Your task to perform on an android device: change notifications settings Image 0: 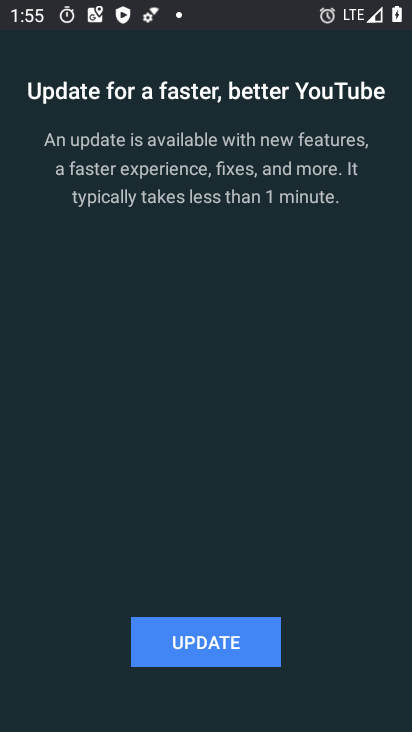
Step 0: press home button
Your task to perform on an android device: change notifications settings Image 1: 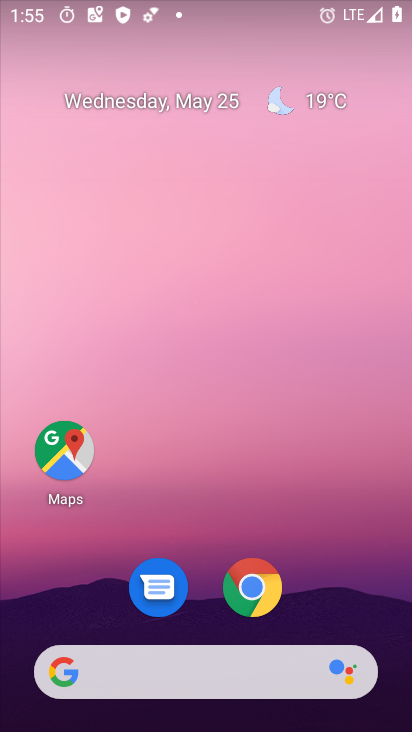
Step 1: drag from (189, 716) to (189, 203)
Your task to perform on an android device: change notifications settings Image 2: 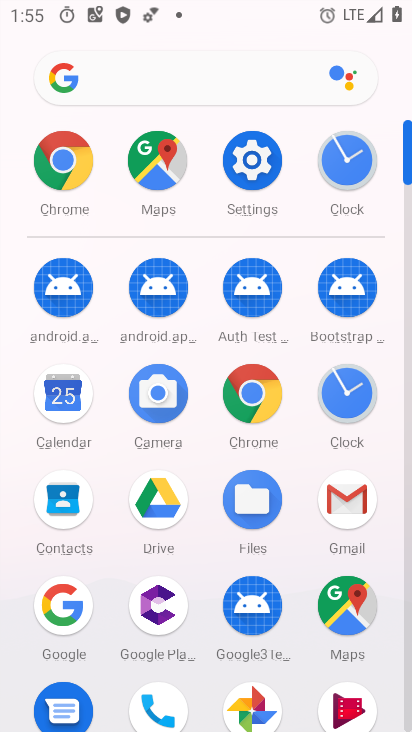
Step 2: click (236, 161)
Your task to perform on an android device: change notifications settings Image 3: 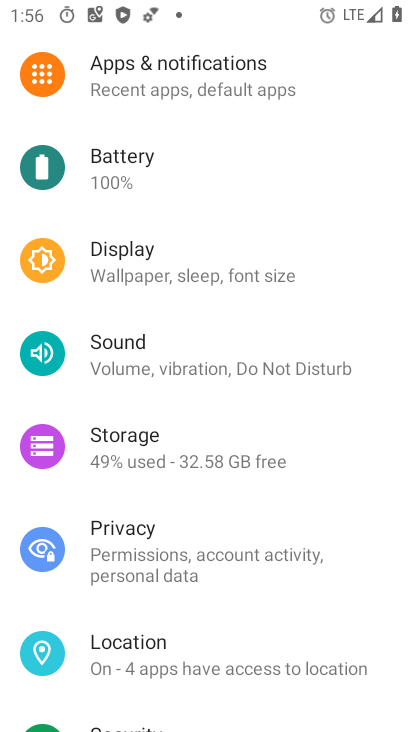
Step 3: click (167, 79)
Your task to perform on an android device: change notifications settings Image 4: 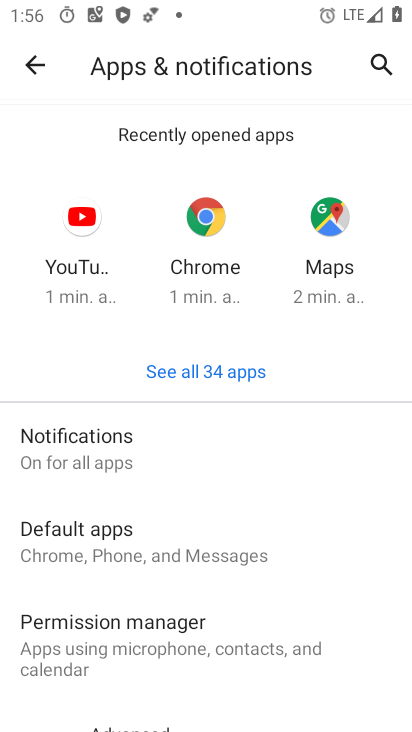
Step 4: click (77, 450)
Your task to perform on an android device: change notifications settings Image 5: 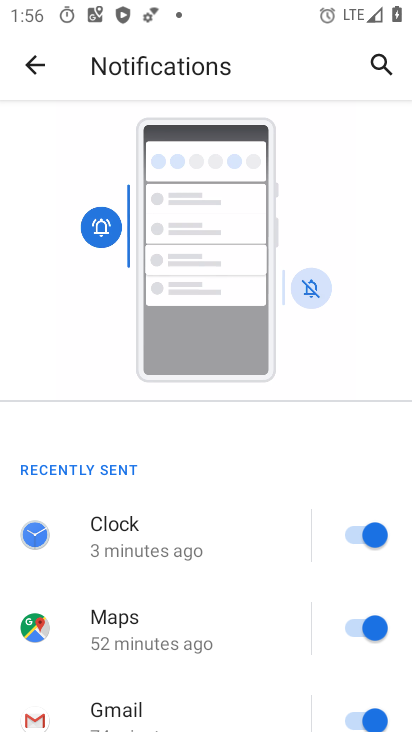
Step 5: drag from (159, 685) to (182, 310)
Your task to perform on an android device: change notifications settings Image 6: 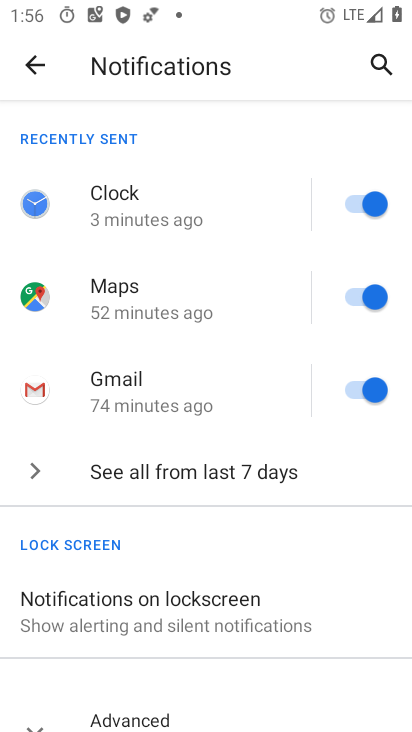
Step 6: drag from (155, 652) to (128, 284)
Your task to perform on an android device: change notifications settings Image 7: 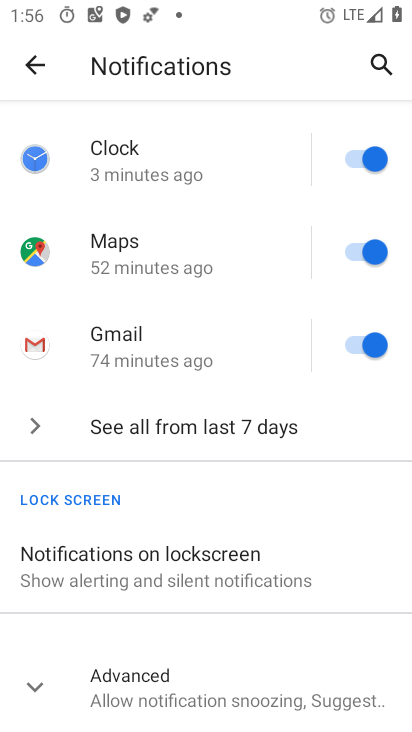
Step 7: click (133, 681)
Your task to perform on an android device: change notifications settings Image 8: 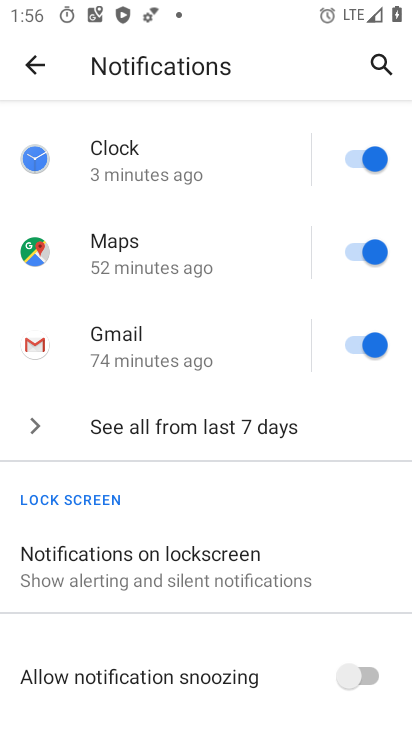
Step 8: click (363, 675)
Your task to perform on an android device: change notifications settings Image 9: 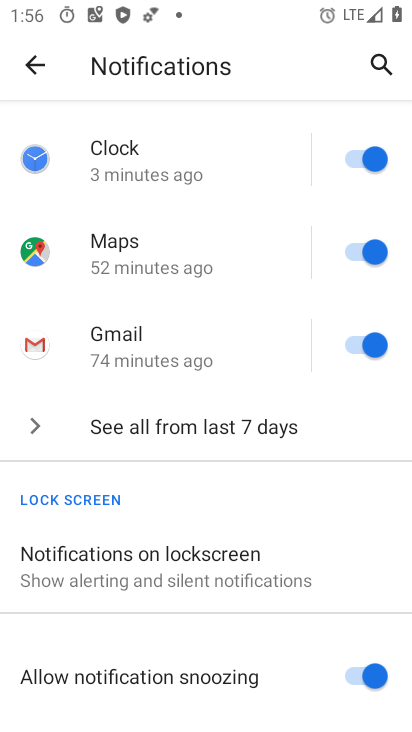
Step 9: task complete